Your task to perform on an android device: Go to notification settings Image 0: 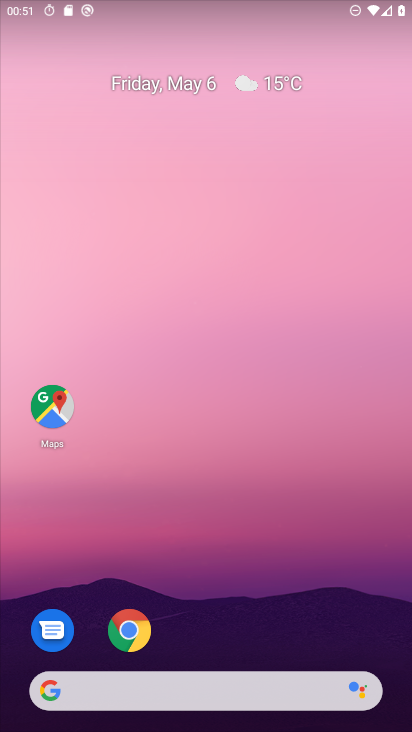
Step 0: drag from (316, 566) to (279, 7)
Your task to perform on an android device: Go to notification settings Image 1: 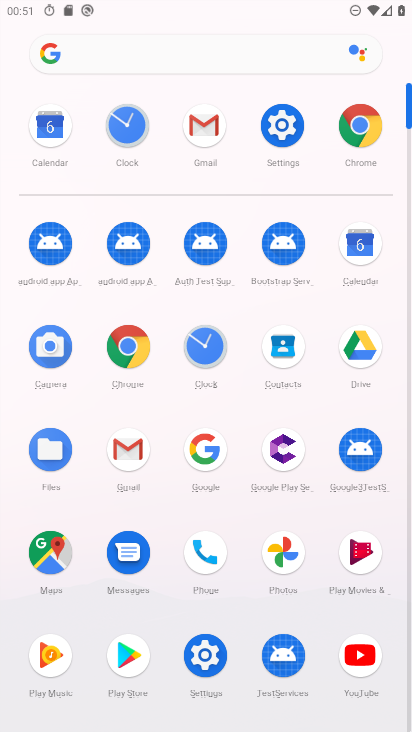
Step 1: click (277, 118)
Your task to perform on an android device: Go to notification settings Image 2: 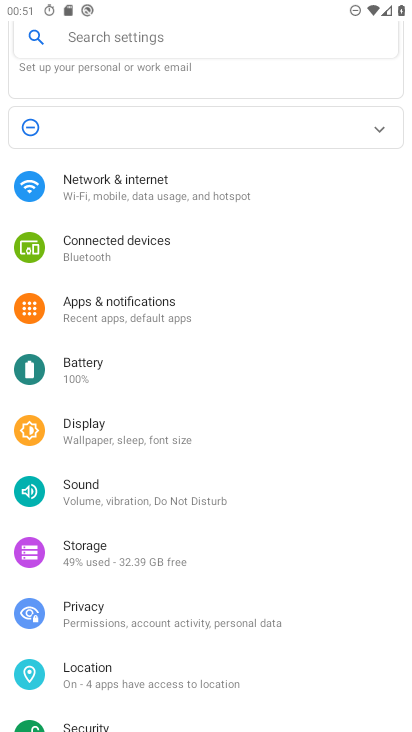
Step 2: click (137, 320)
Your task to perform on an android device: Go to notification settings Image 3: 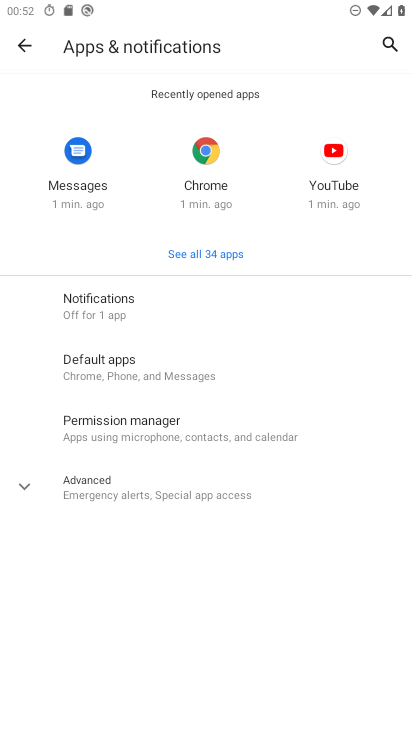
Step 3: click (110, 282)
Your task to perform on an android device: Go to notification settings Image 4: 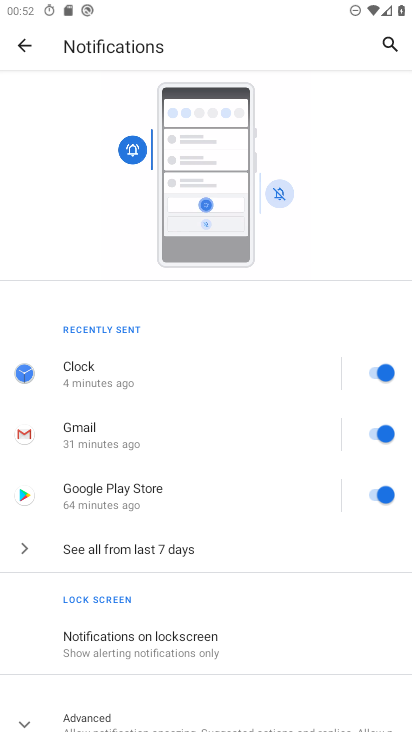
Step 4: task complete